Your task to perform on an android device: Go to calendar. Show me events next week Image 0: 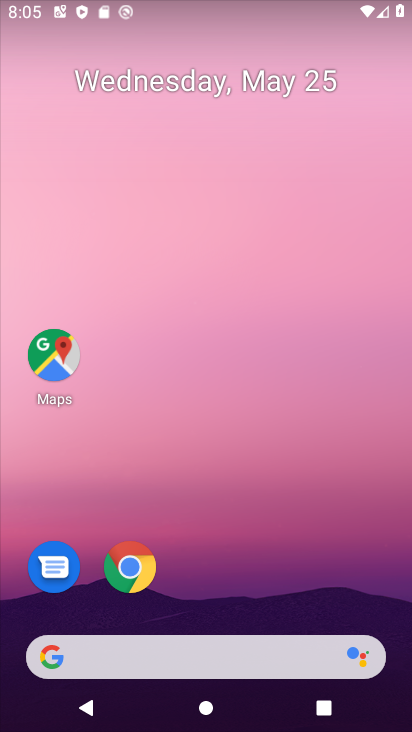
Step 0: drag from (285, 610) to (310, 52)
Your task to perform on an android device: Go to calendar. Show me events next week Image 1: 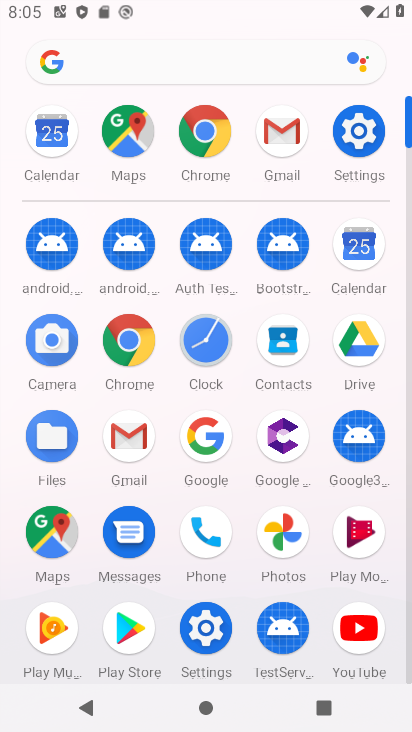
Step 1: click (69, 154)
Your task to perform on an android device: Go to calendar. Show me events next week Image 2: 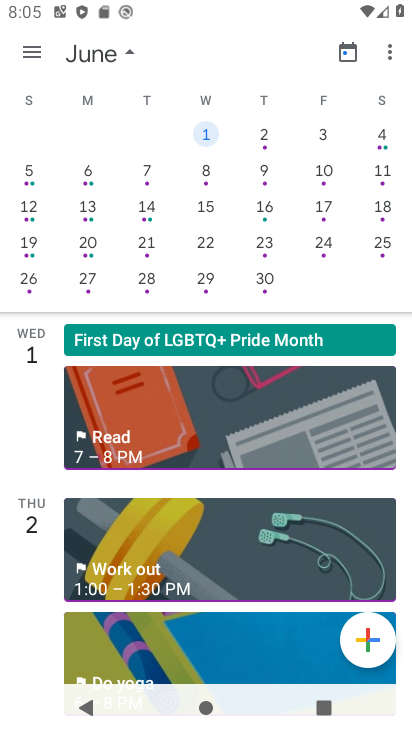
Step 2: task complete